Your task to perform on an android device: toggle sleep mode Image 0: 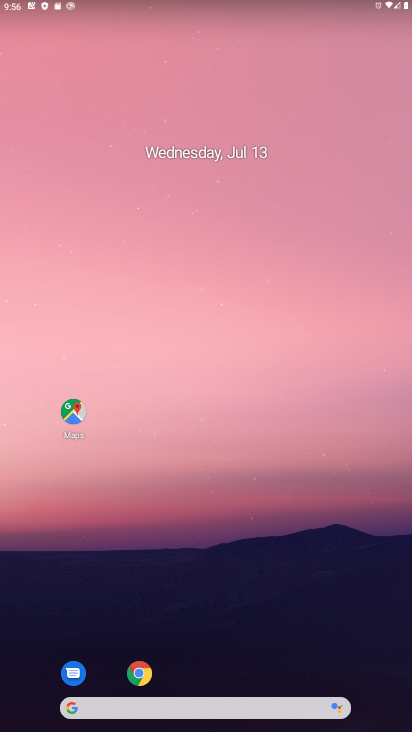
Step 0: drag from (188, 666) to (171, 306)
Your task to perform on an android device: toggle sleep mode Image 1: 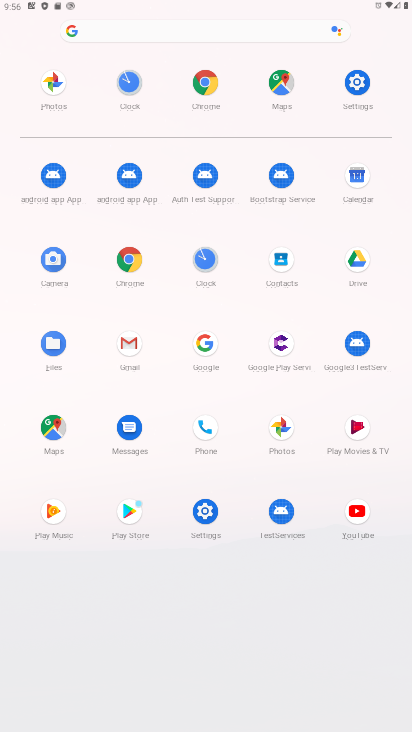
Step 1: click (356, 83)
Your task to perform on an android device: toggle sleep mode Image 2: 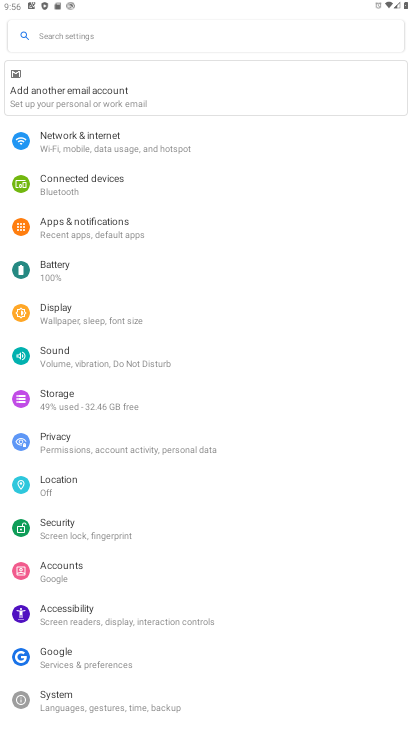
Step 2: task complete